Your task to perform on an android device: open app "Google Drive" (install if not already installed) Image 0: 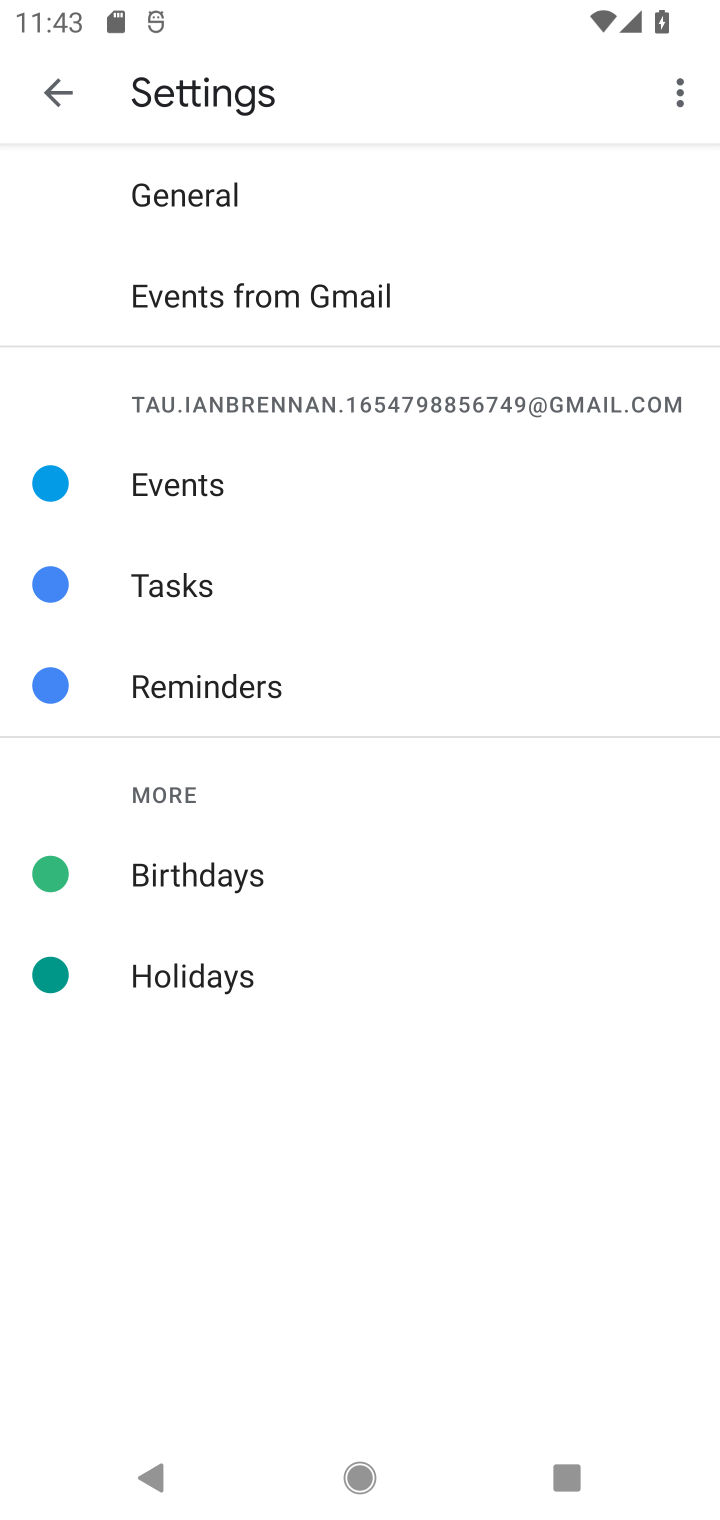
Step 0: press home button
Your task to perform on an android device: open app "Google Drive" (install if not already installed) Image 1: 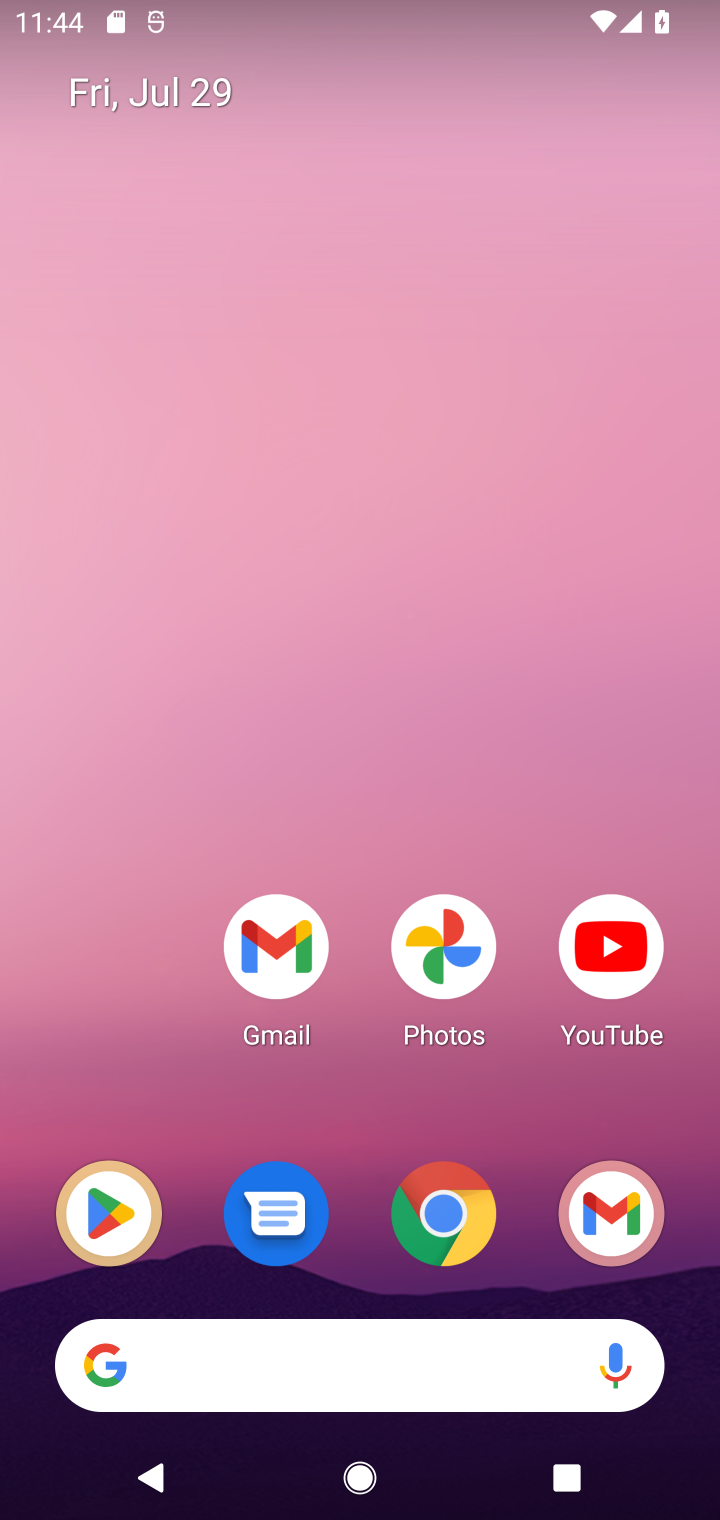
Step 1: drag from (446, 1488) to (454, 315)
Your task to perform on an android device: open app "Google Drive" (install if not already installed) Image 2: 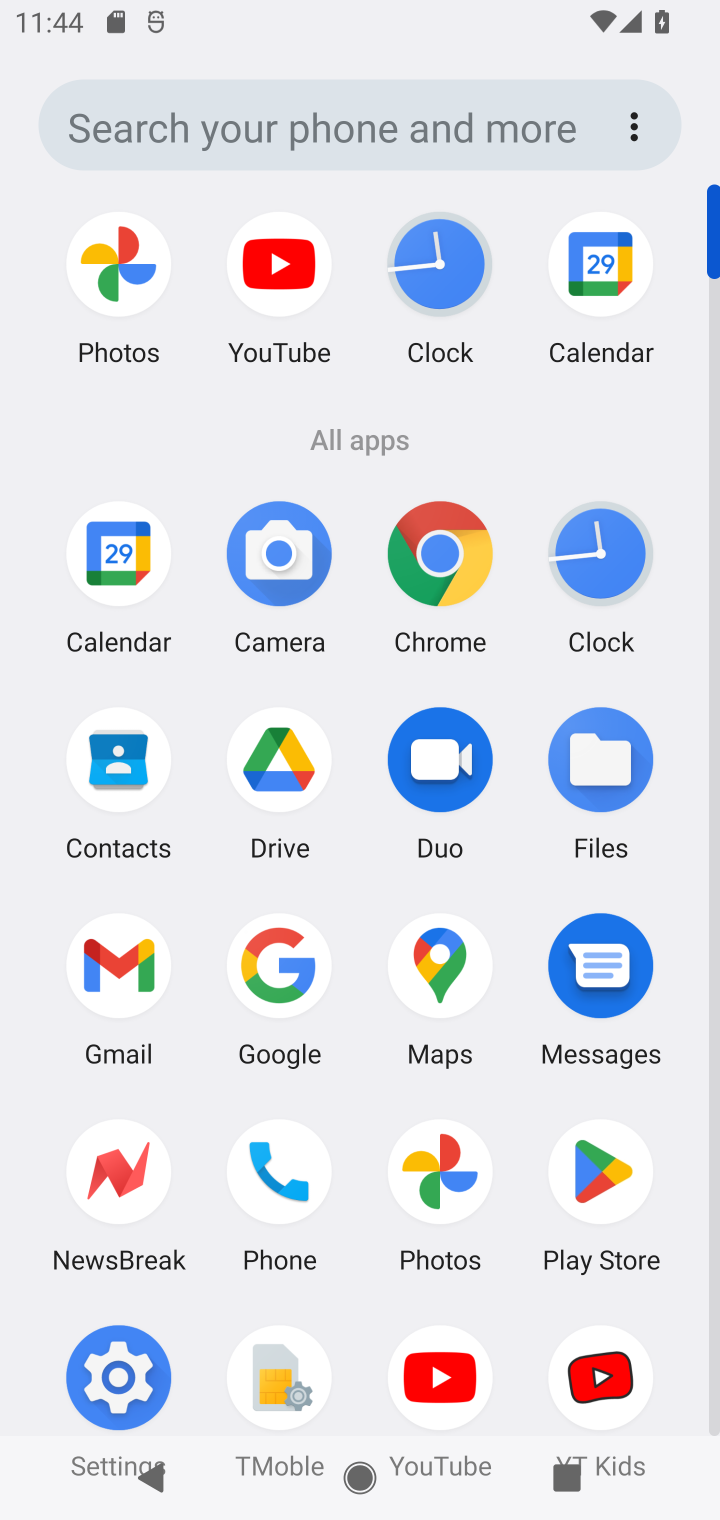
Step 2: click (294, 769)
Your task to perform on an android device: open app "Google Drive" (install if not already installed) Image 3: 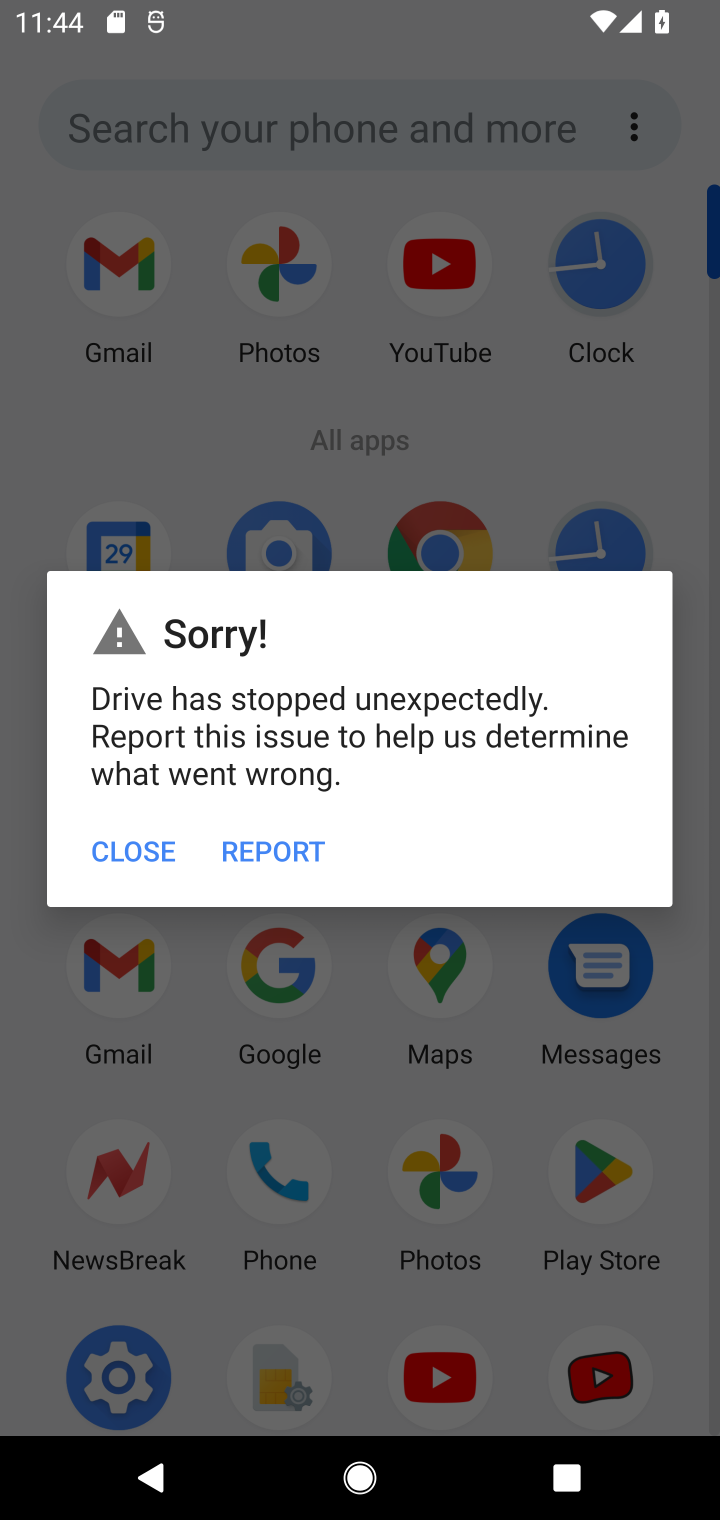
Step 3: click (148, 851)
Your task to perform on an android device: open app "Google Drive" (install if not already installed) Image 4: 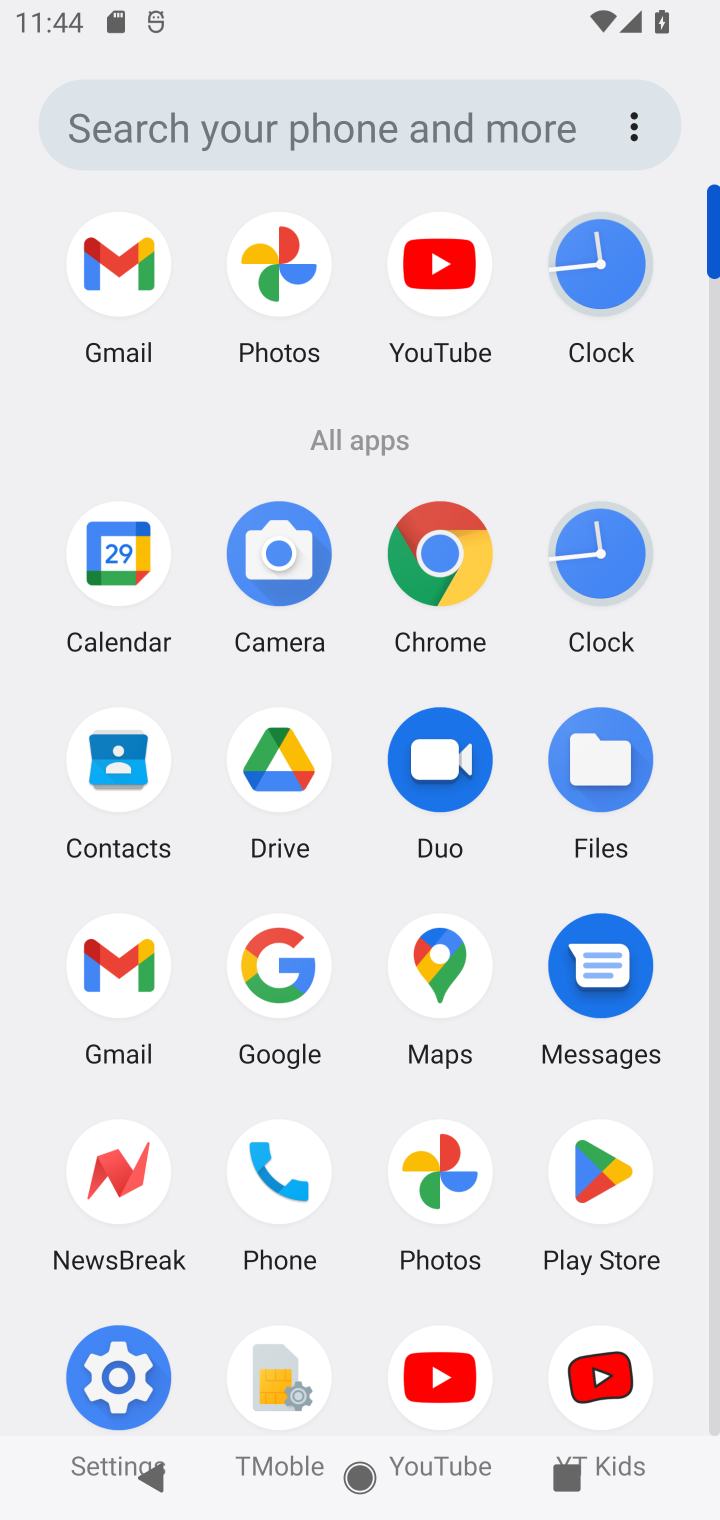
Step 4: click (282, 781)
Your task to perform on an android device: open app "Google Drive" (install if not already installed) Image 5: 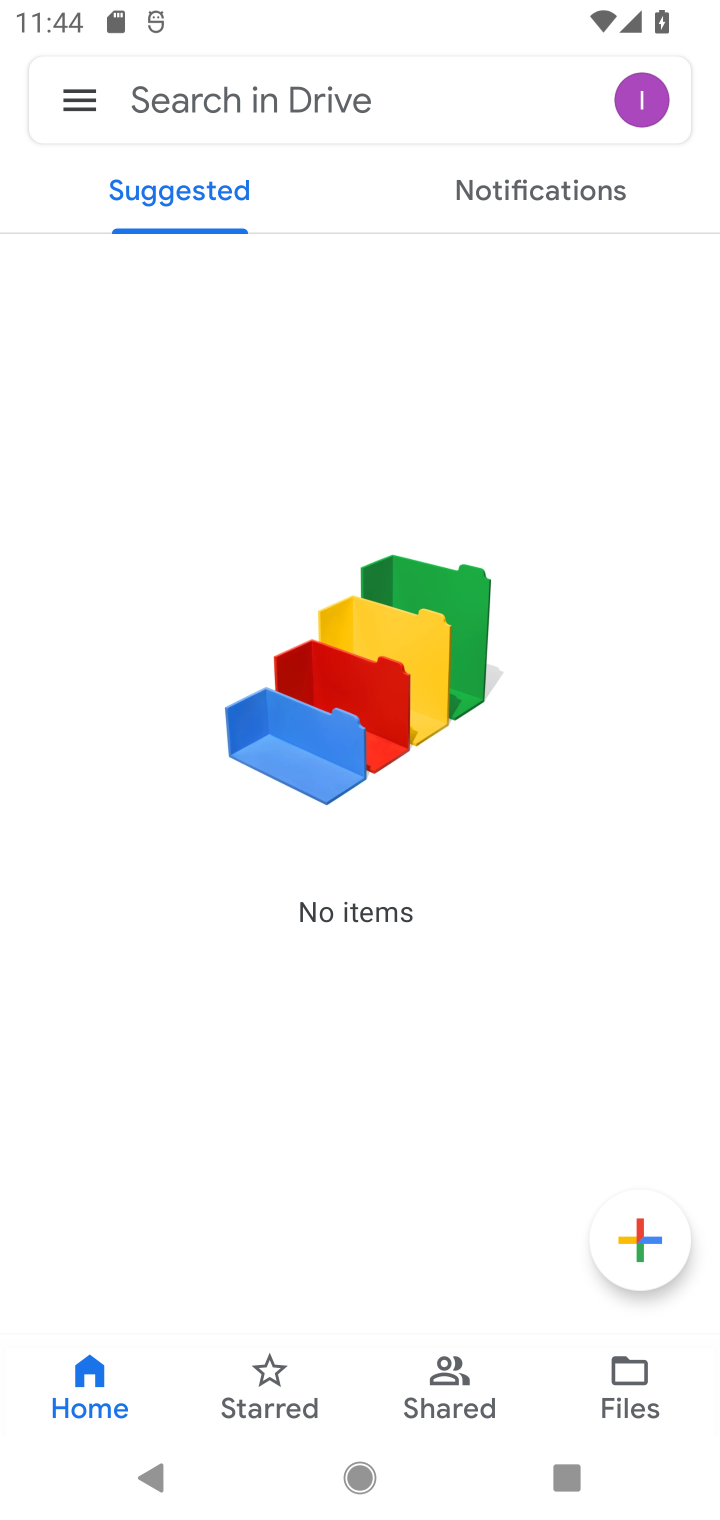
Step 5: task complete